Your task to perform on an android device: empty trash in the gmail app Image 0: 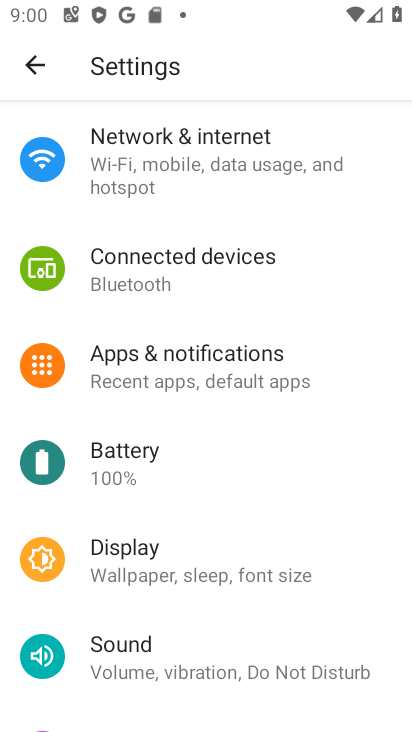
Step 0: press home button
Your task to perform on an android device: empty trash in the gmail app Image 1: 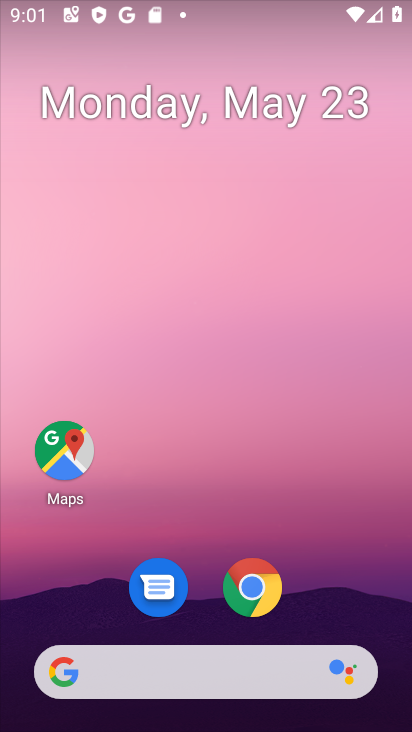
Step 1: drag from (243, 520) to (300, 37)
Your task to perform on an android device: empty trash in the gmail app Image 2: 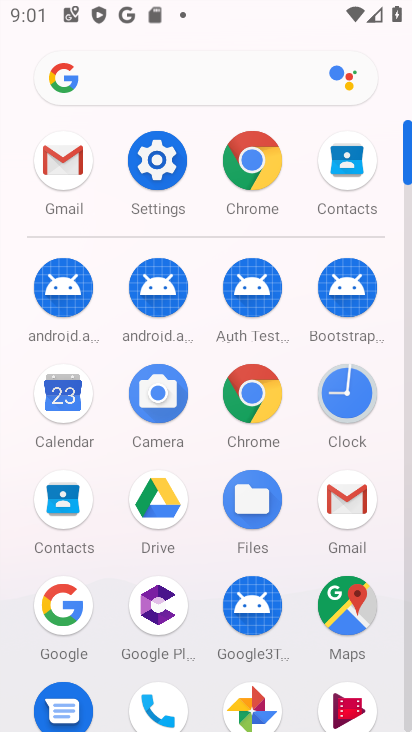
Step 2: click (63, 156)
Your task to perform on an android device: empty trash in the gmail app Image 3: 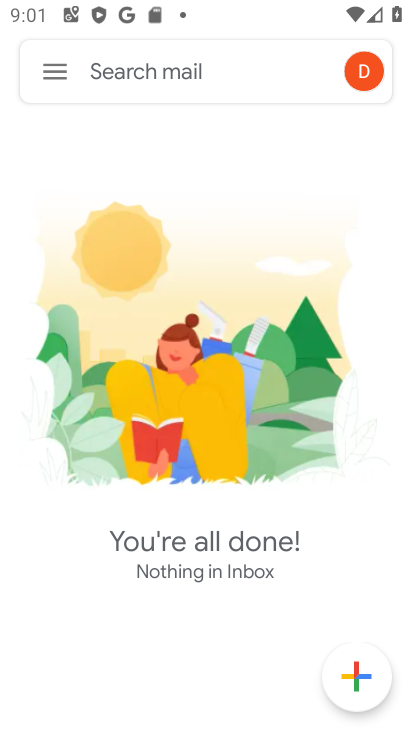
Step 3: click (51, 76)
Your task to perform on an android device: empty trash in the gmail app Image 4: 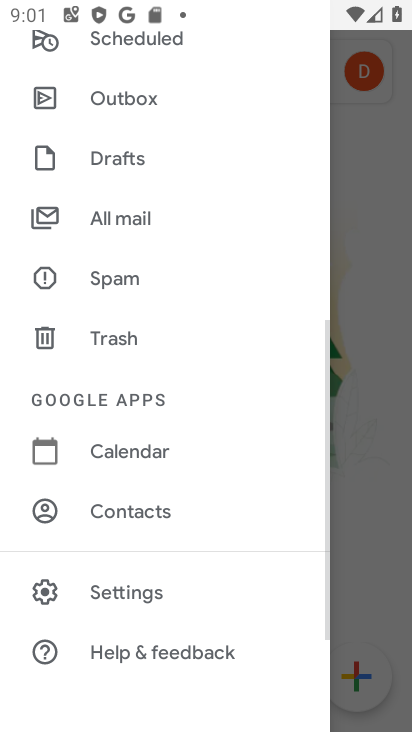
Step 4: click (122, 342)
Your task to perform on an android device: empty trash in the gmail app Image 5: 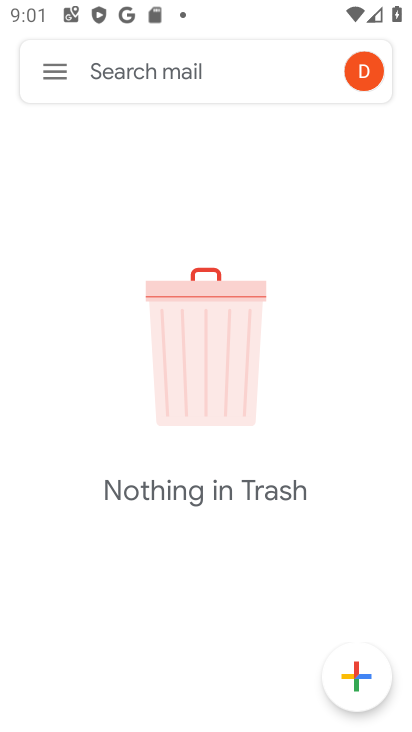
Step 5: task complete